Your task to perform on an android device: turn on notifications settings in the gmail app Image 0: 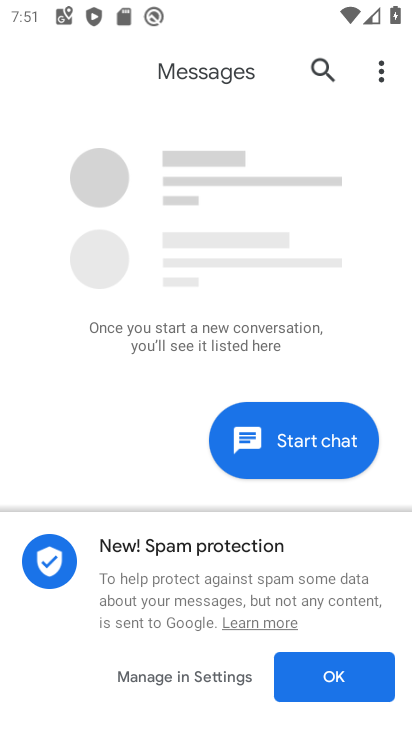
Step 0: press home button
Your task to perform on an android device: turn on notifications settings in the gmail app Image 1: 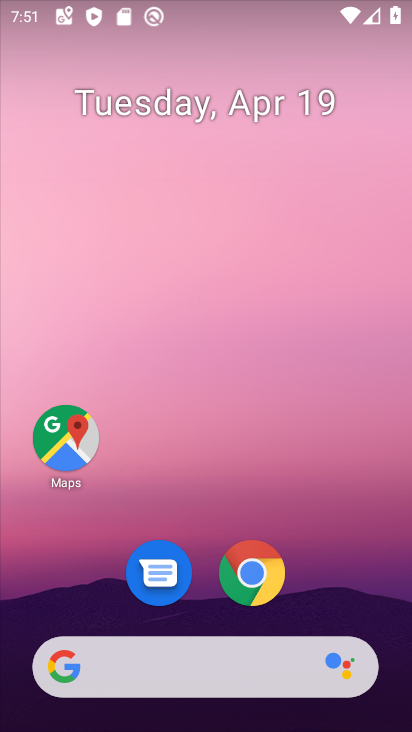
Step 1: drag from (216, 537) to (207, 144)
Your task to perform on an android device: turn on notifications settings in the gmail app Image 2: 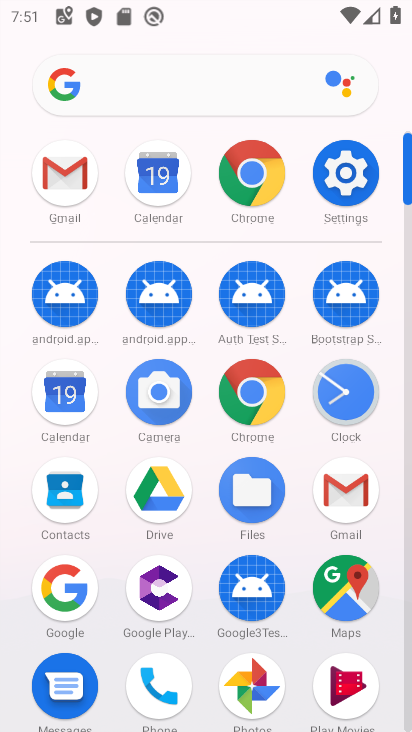
Step 2: click (62, 163)
Your task to perform on an android device: turn on notifications settings in the gmail app Image 3: 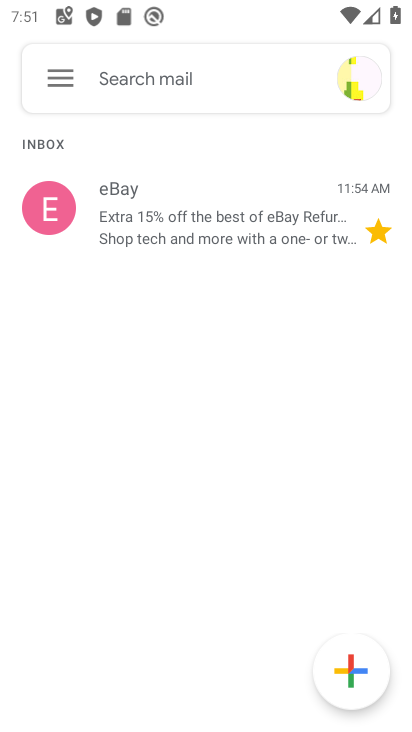
Step 3: click (49, 88)
Your task to perform on an android device: turn on notifications settings in the gmail app Image 4: 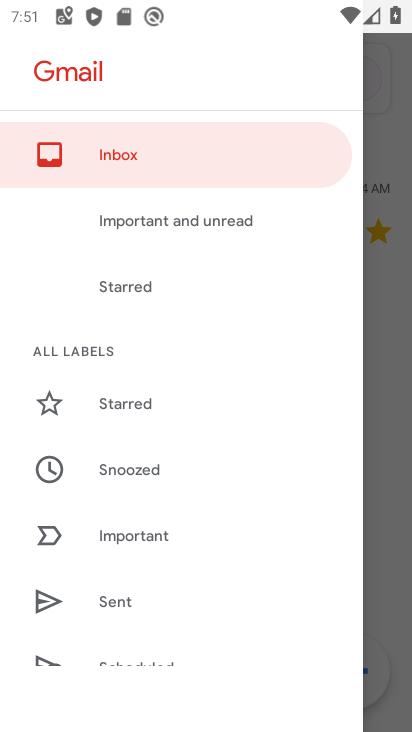
Step 4: drag from (140, 577) to (73, 95)
Your task to perform on an android device: turn on notifications settings in the gmail app Image 5: 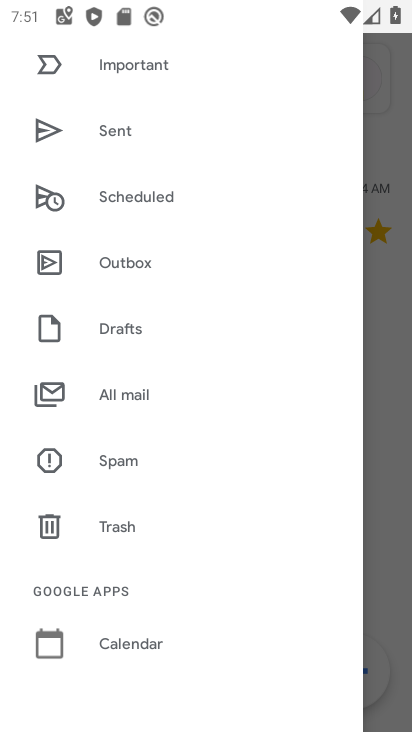
Step 5: drag from (113, 465) to (85, 295)
Your task to perform on an android device: turn on notifications settings in the gmail app Image 6: 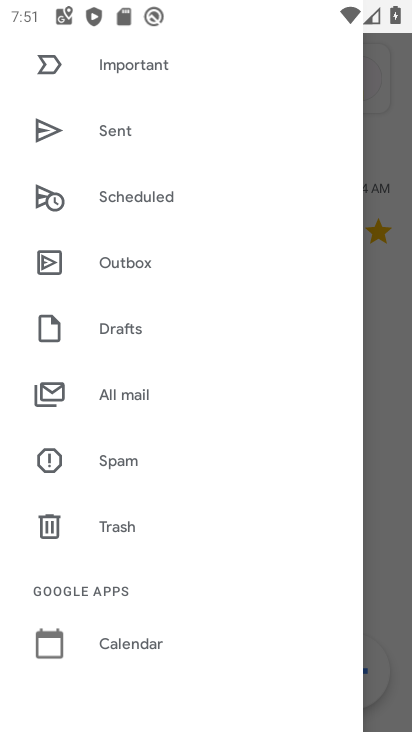
Step 6: drag from (146, 447) to (147, 291)
Your task to perform on an android device: turn on notifications settings in the gmail app Image 7: 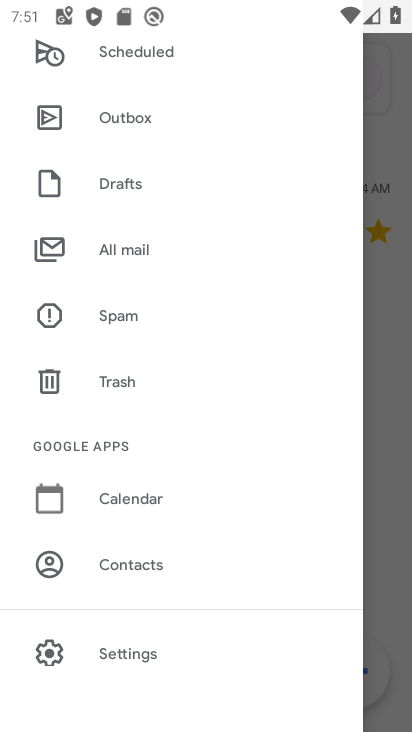
Step 7: click (128, 650)
Your task to perform on an android device: turn on notifications settings in the gmail app Image 8: 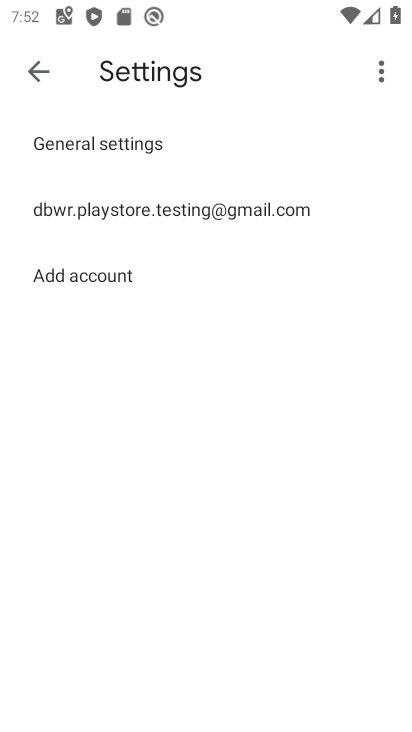
Step 8: click (174, 205)
Your task to perform on an android device: turn on notifications settings in the gmail app Image 9: 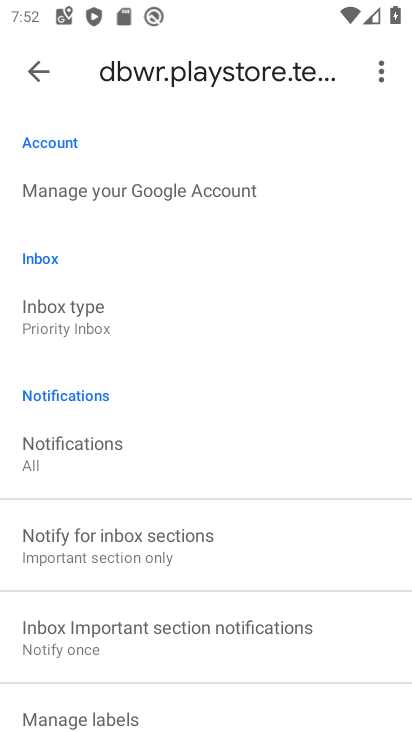
Step 9: click (51, 436)
Your task to perform on an android device: turn on notifications settings in the gmail app Image 10: 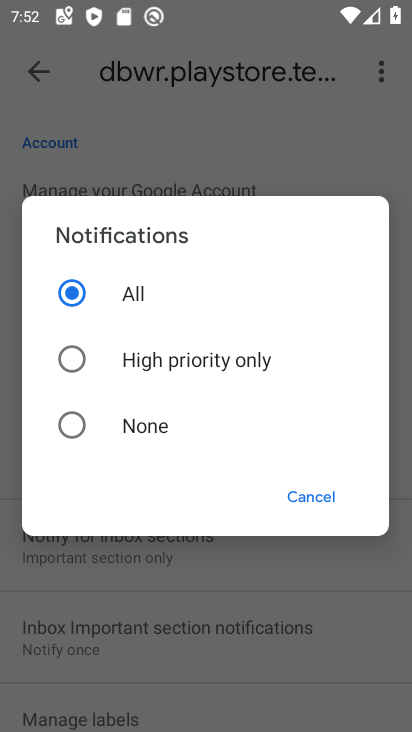
Step 10: task complete